Your task to perform on an android device: Show me productivity apps on the Play Store Image 0: 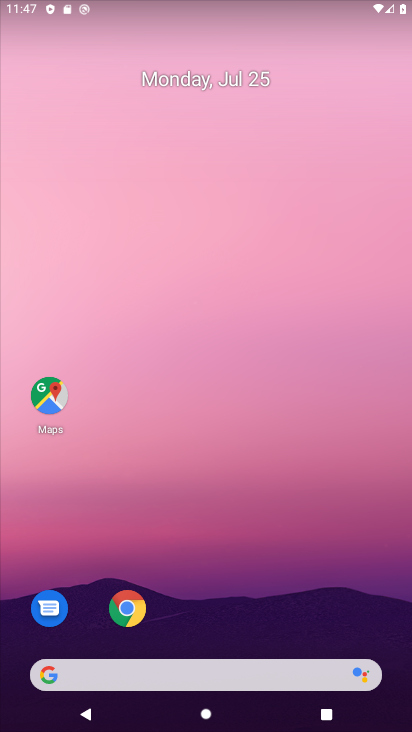
Step 0: drag from (272, 624) to (330, 35)
Your task to perform on an android device: Show me productivity apps on the Play Store Image 1: 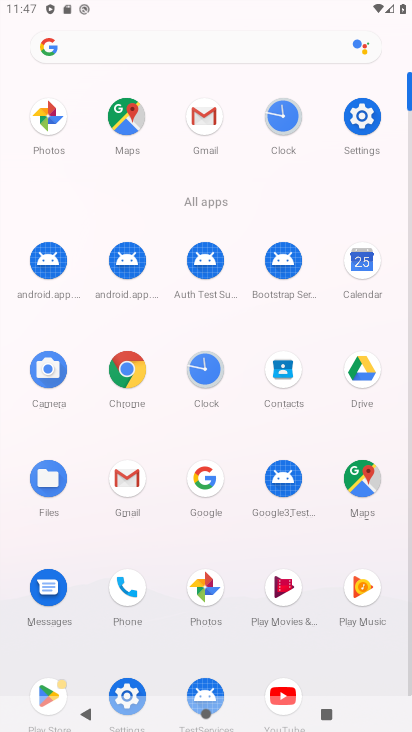
Step 1: click (44, 694)
Your task to perform on an android device: Show me productivity apps on the Play Store Image 2: 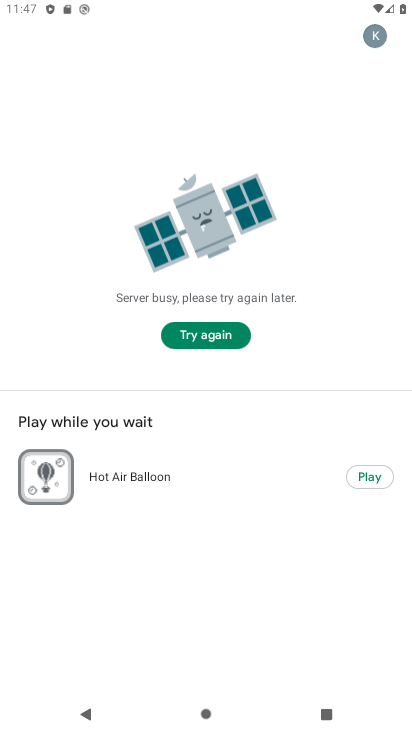
Step 2: click (223, 337)
Your task to perform on an android device: Show me productivity apps on the Play Store Image 3: 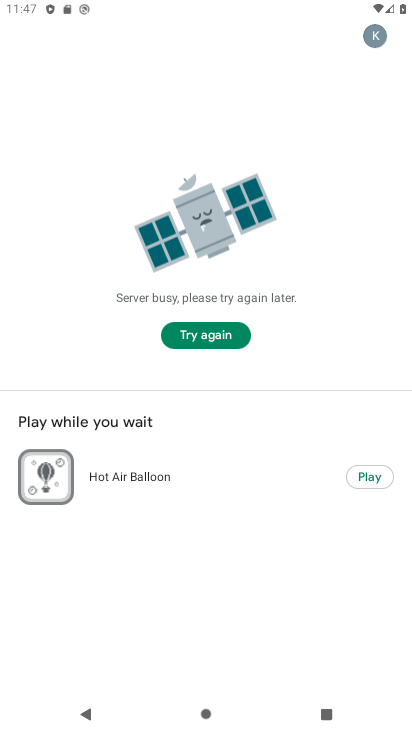
Step 3: click (223, 337)
Your task to perform on an android device: Show me productivity apps on the Play Store Image 4: 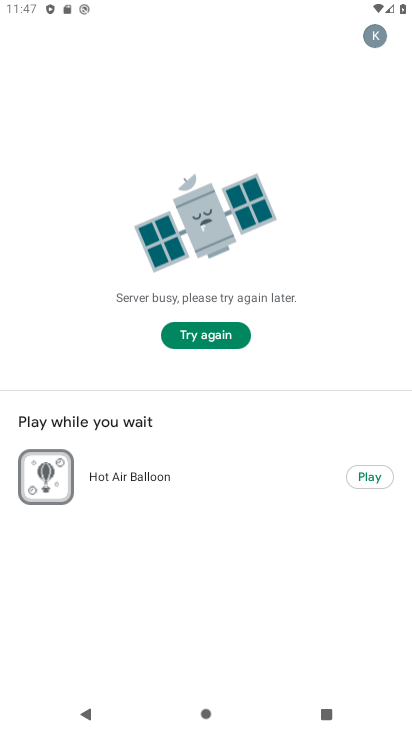
Step 4: click (223, 337)
Your task to perform on an android device: Show me productivity apps on the Play Store Image 5: 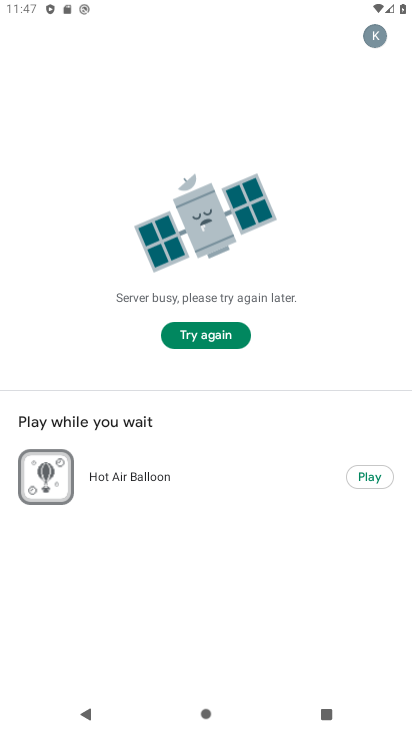
Step 5: task complete